Your task to perform on an android device: Show the shopping cart on newegg.com. Add "bose soundlink" to the cart on newegg.com Image 0: 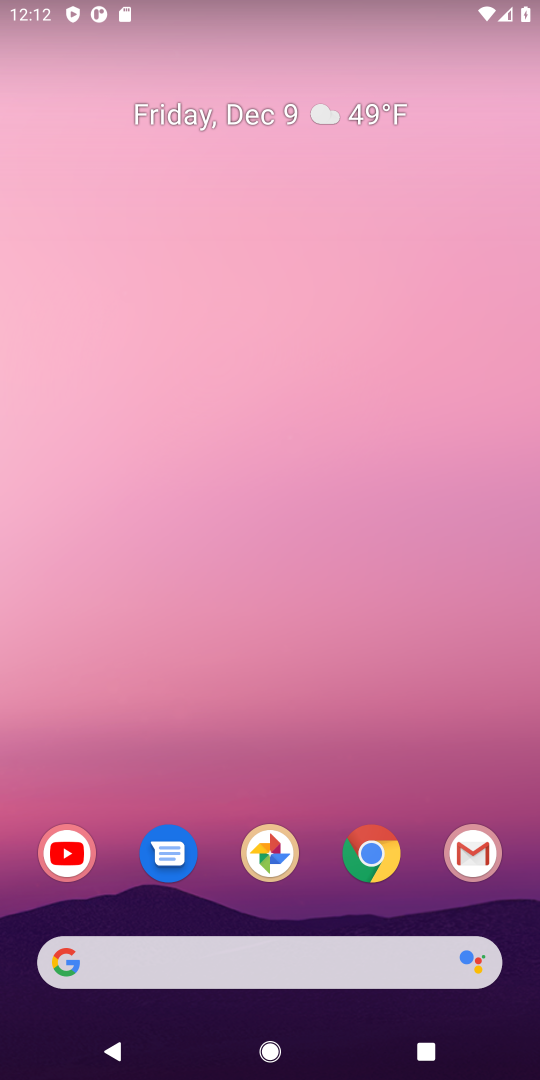
Step 0: click (508, 145)
Your task to perform on an android device: Show the shopping cart on newegg.com. Add "bose soundlink" to the cart on newegg.com Image 1: 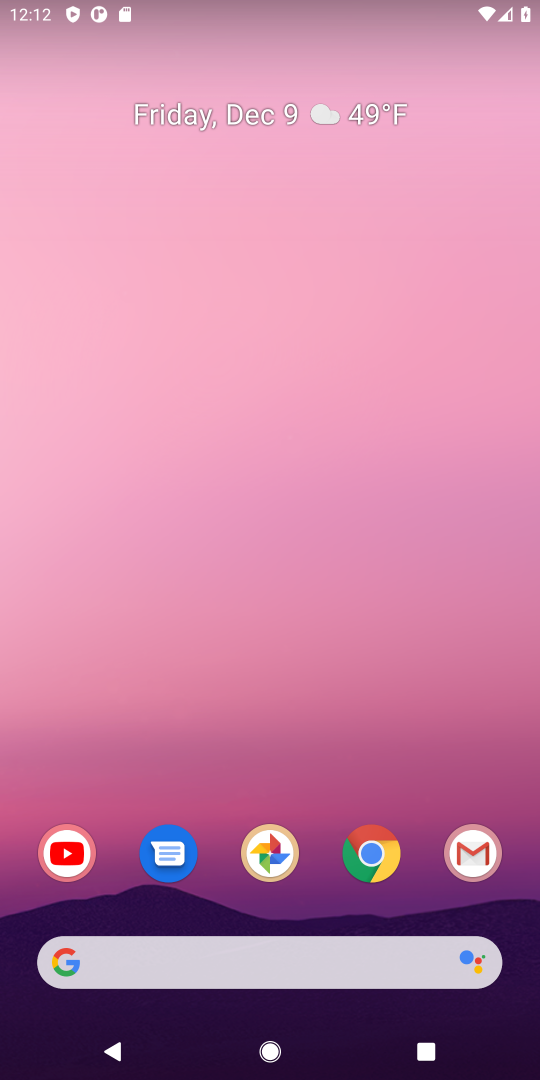
Step 1: drag from (320, 948) to (311, 330)
Your task to perform on an android device: Show the shopping cart on newegg.com. Add "bose soundlink" to the cart on newegg.com Image 2: 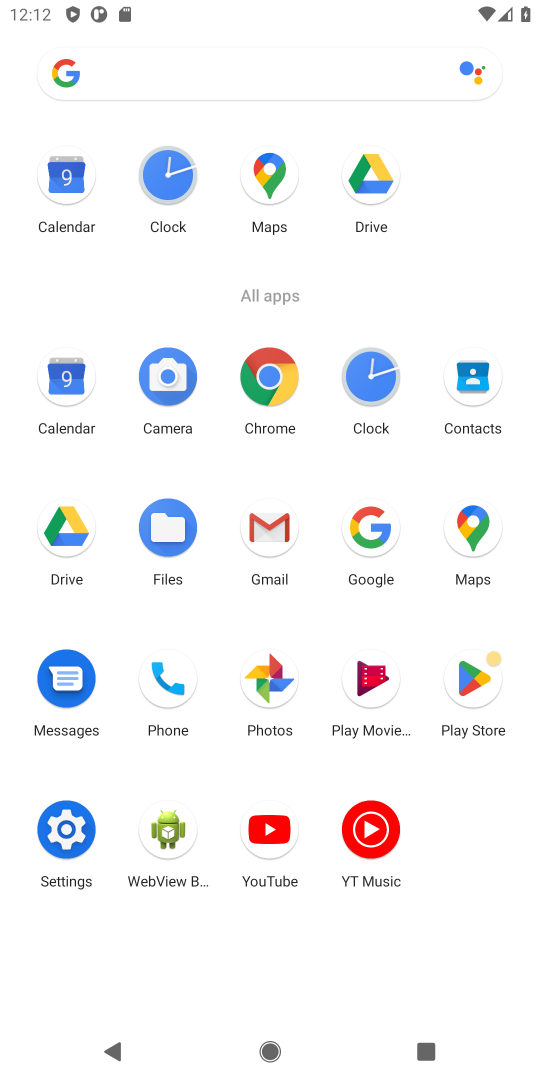
Step 2: press home button
Your task to perform on an android device: Show the shopping cart on newegg.com. Add "bose soundlink" to the cart on newegg.com Image 3: 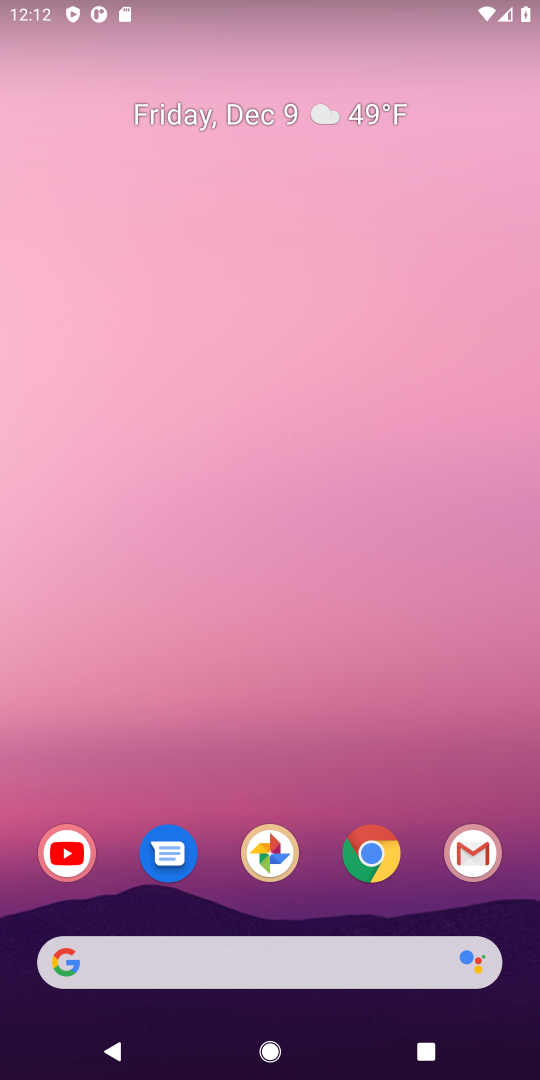
Step 3: drag from (291, 966) to (326, 249)
Your task to perform on an android device: Show the shopping cart on newegg.com. Add "bose soundlink" to the cart on newegg.com Image 4: 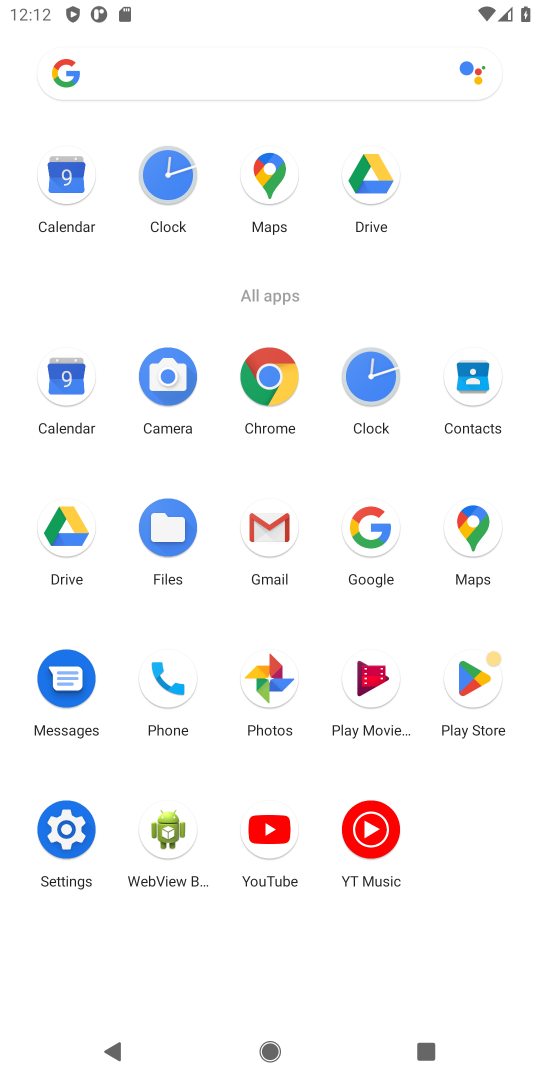
Step 4: click (370, 534)
Your task to perform on an android device: Show the shopping cart on newegg.com. Add "bose soundlink" to the cart on newegg.com Image 5: 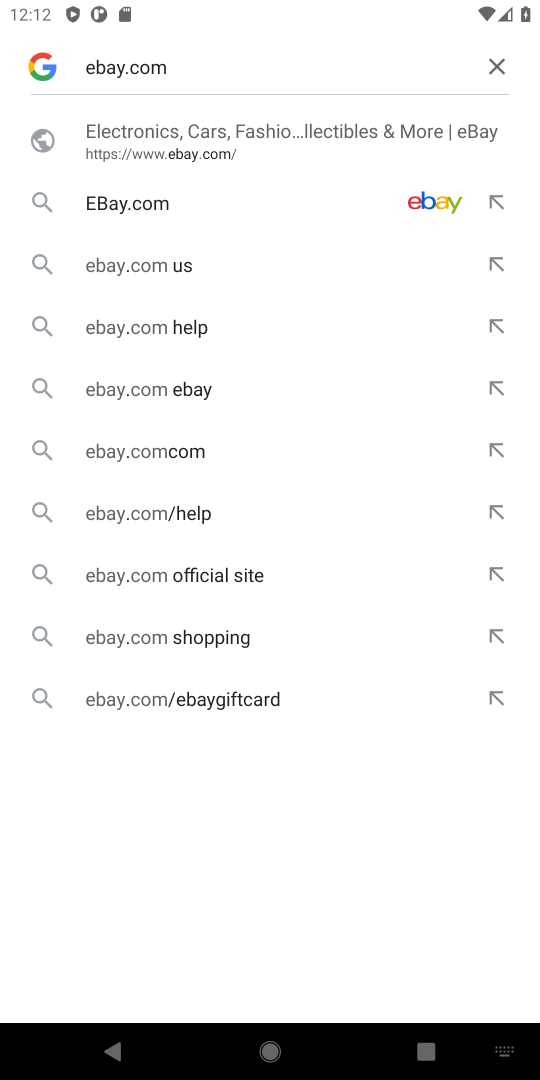
Step 5: click (499, 77)
Your task to perform on an android device: Show the shopping cart on newegg.com. Add "bose soundlink" to the cart on newegg.com Image 6: 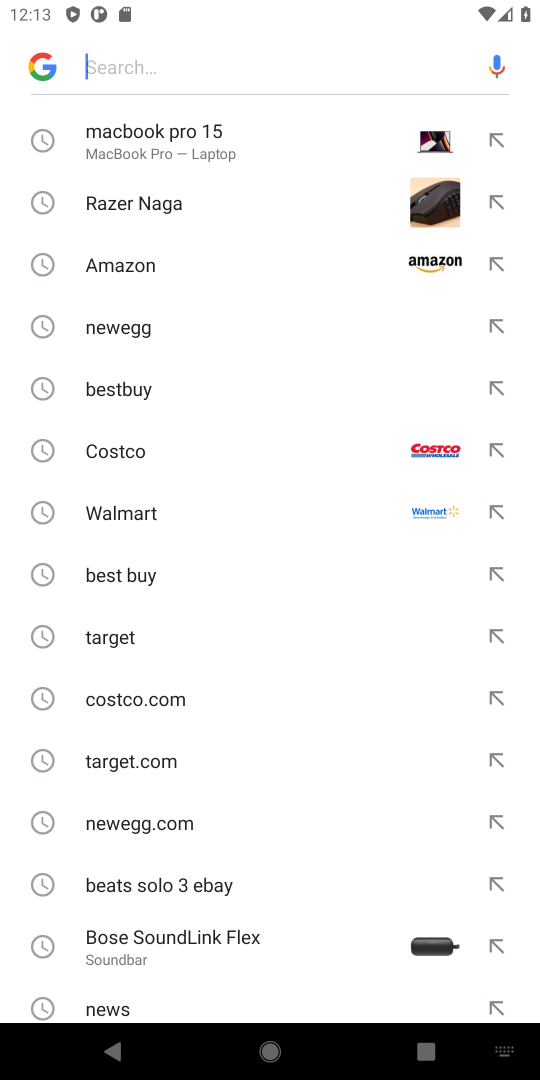
Step 6: click (132, 328)
Your task to perform on an android device: Show the shopping cart on newegg.com. Add "bose soundlink" to the cart on newegg.com Image 7: 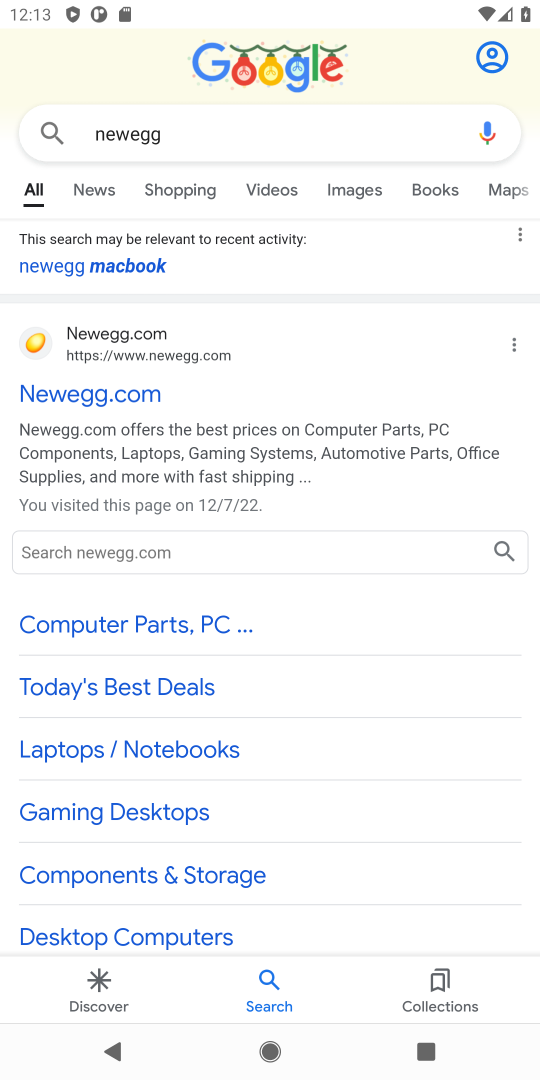
Step 7: click (88, 396)
Your task to perform on an android device: Show the shopping cart on newegg.com. Add "bose soundlink" to the cart on newegg.com Image 8: 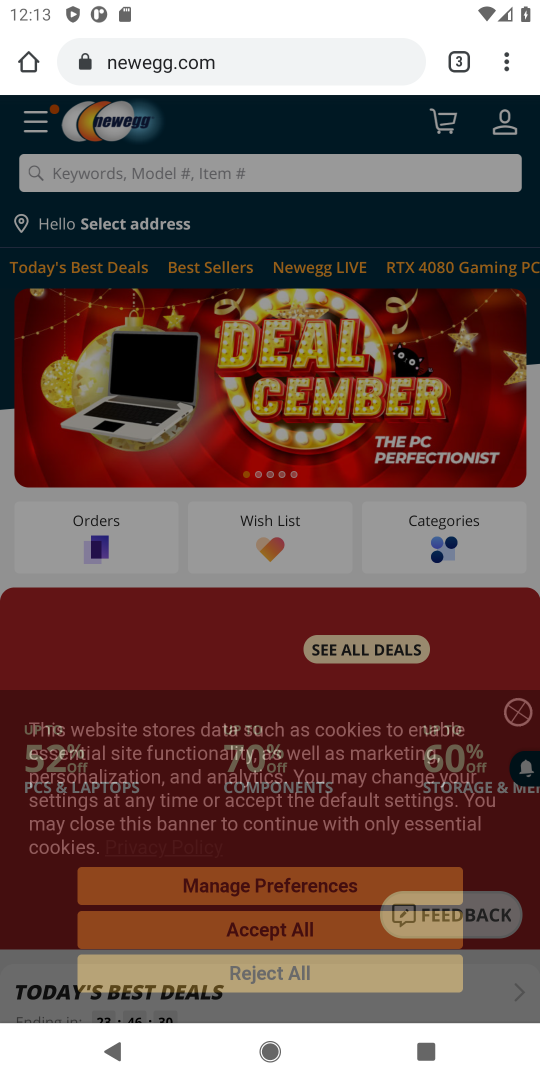
Step 8: click (125, 168)
Your task to perform on an android device: Show the shopping cart on newegg.com. Add "bose soundlink" to the cart on newegg.com Image 9: 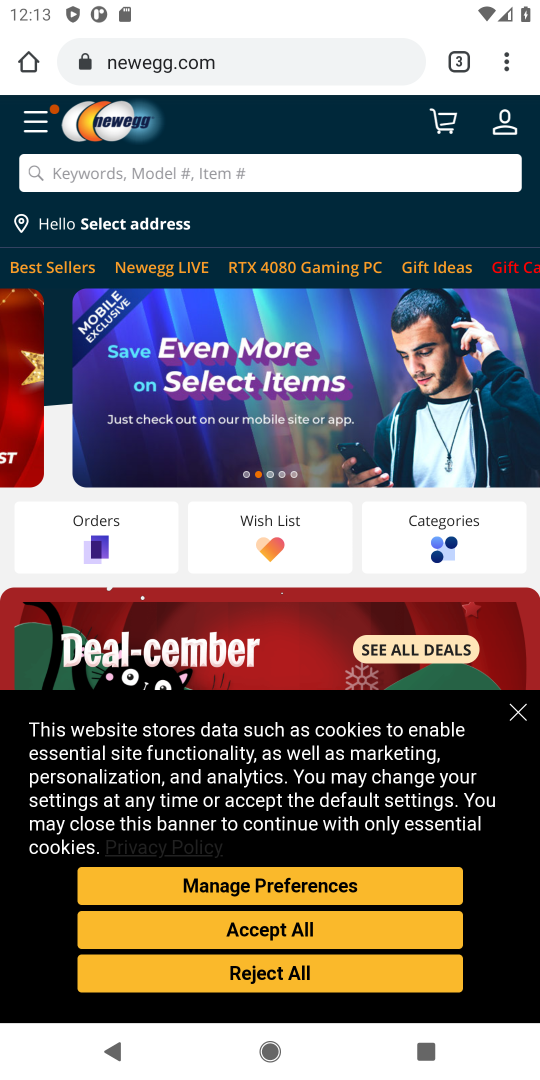
Step 9: click (483, 205)
Your task to perform on an android device: Show the shopping cart on newegg.com. Add "bose soundlink" to the cart on newegg.com Image 10: 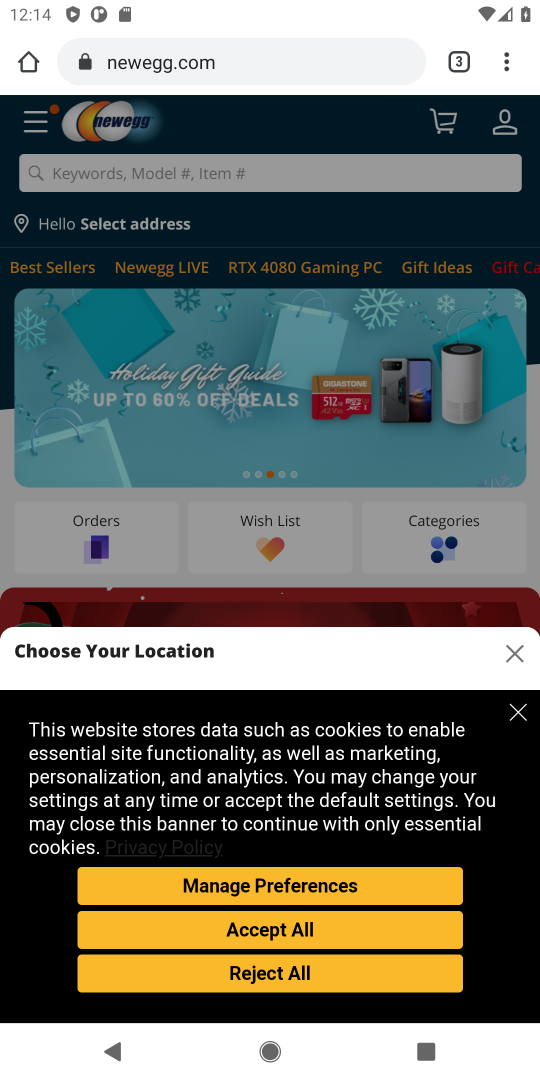
Step 10: click (77, 174)
Your task to perform on an android device: Show the shopping cart on newegg.com. Add "bose soundlink" to the cart on newegg.com Image 11: 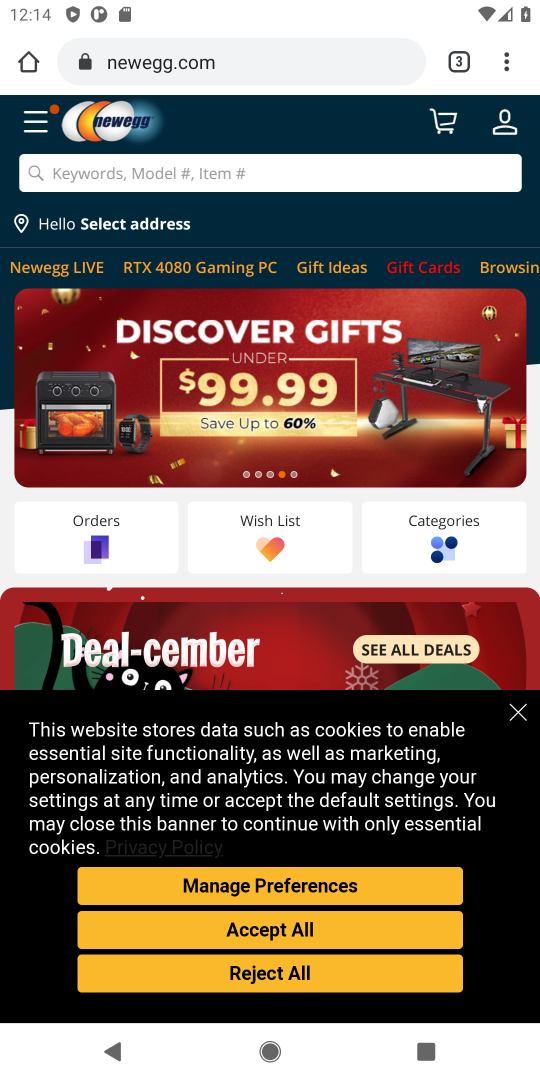
Step 11: type "bose soundlink"
Your task to perform on an android device: Show the shopping cart on newegg.com. Add "bose soundlink" to the cart on newegg.com Image 12: 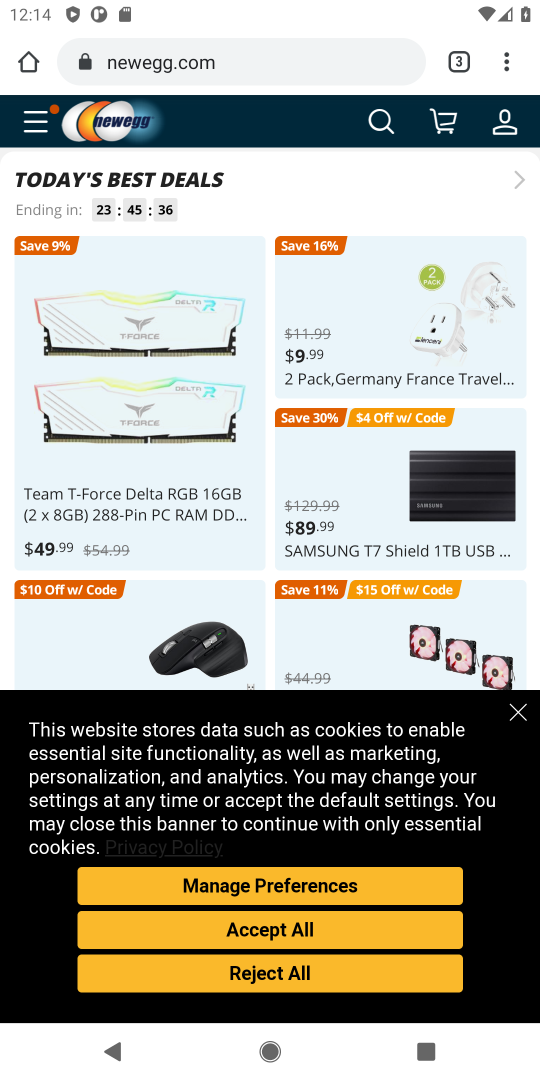
Step 12: click (383, 131)
Your task to perform on an android device: Show the shopping cart on newegg.com. Add "bose soundlink" to the cart on newegg.com Image 13: 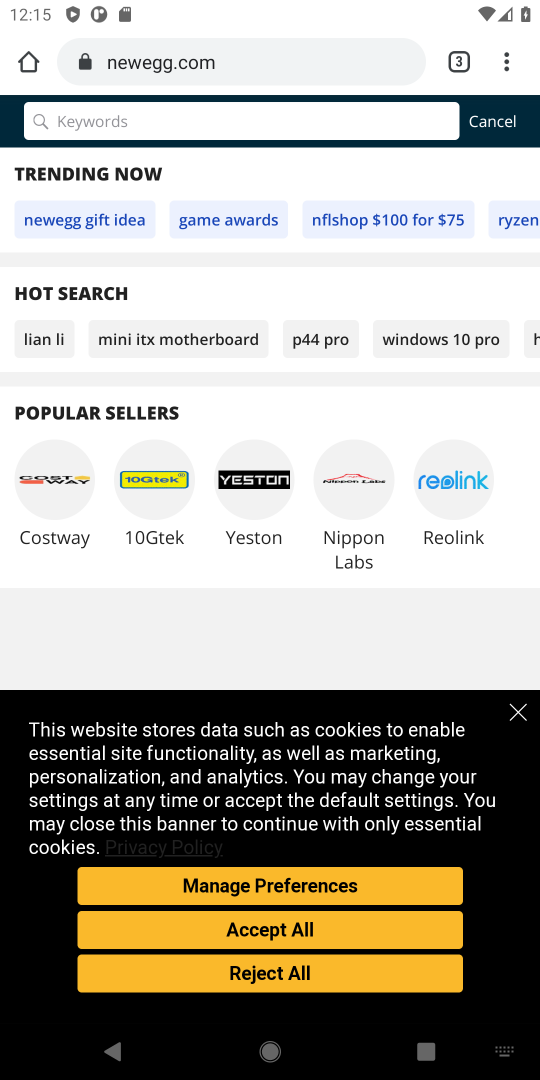
Step 13: type "bose soundlink"
Your task to perform on an android device: Show the shopping cart on newegg.com. Add "bose soundlink" to the cart on newegg.com Image 14: 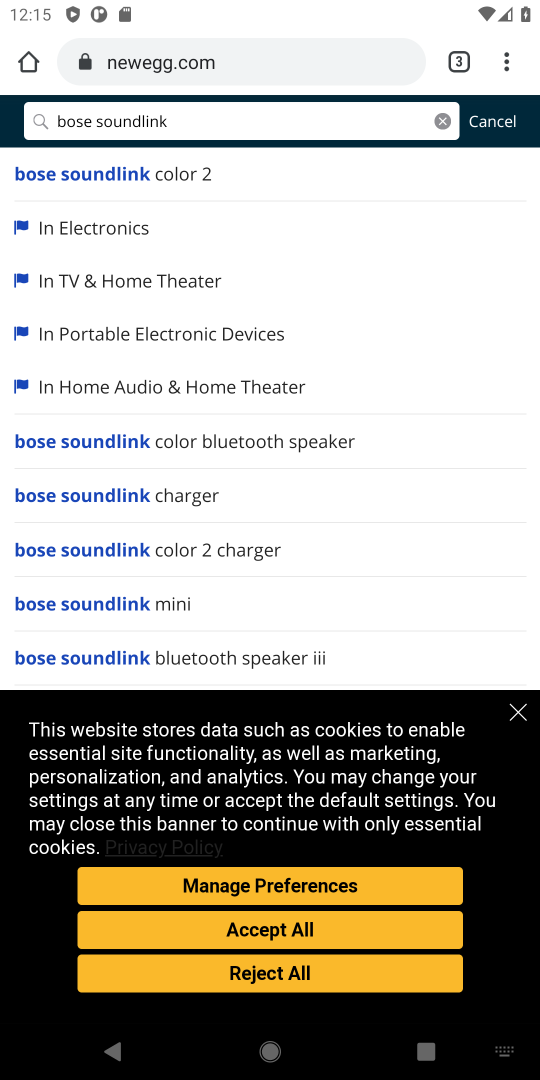
Step 14: click (118, 174)
Your task to perform on an android device: Show the shopping cart on newegg.com. Add "bose soundlink" to the cart on newegg.com Image 15: 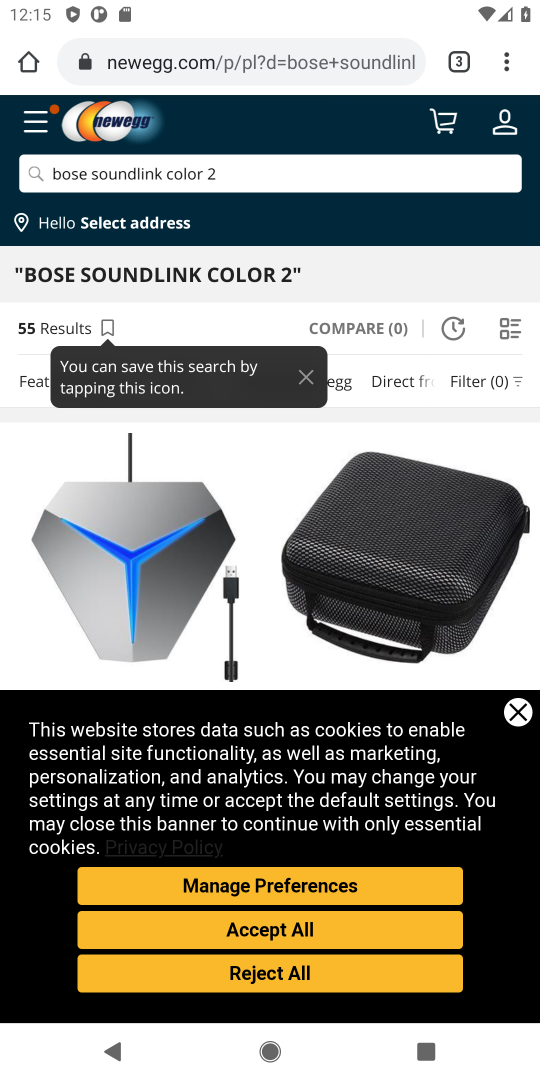
Step 15: click (520, 709)
Your task to perform on an android device: Show the shopping cart on newegg.com. Add "bose soundlink" to the cart on newegg.com Image 16: 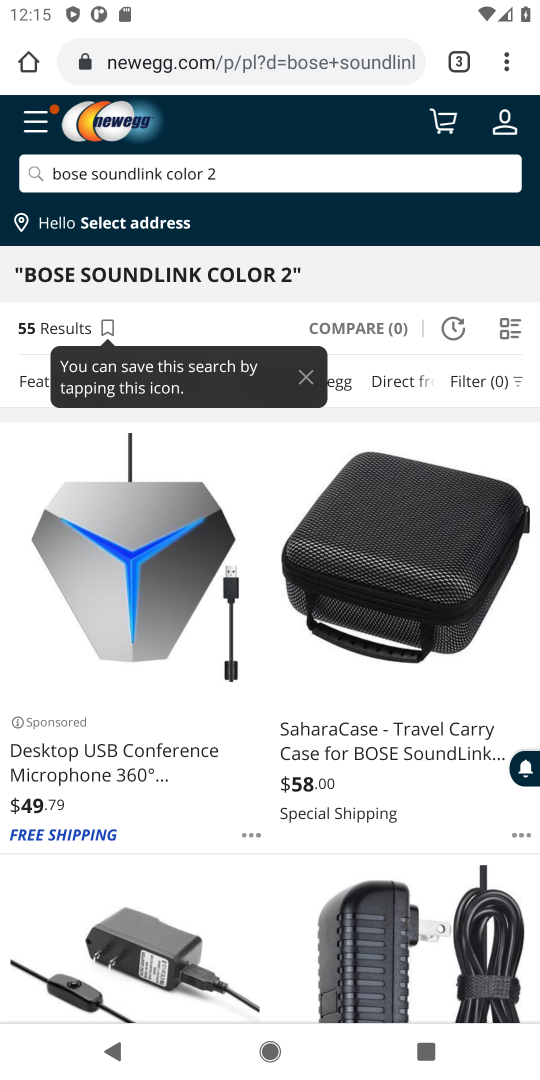
Step 16: click (88, 643)
Your task to perform on an android device: Show the shopping cart on newegg.com. Add "bose soundlink" to the cart on newegg.com Image 17: 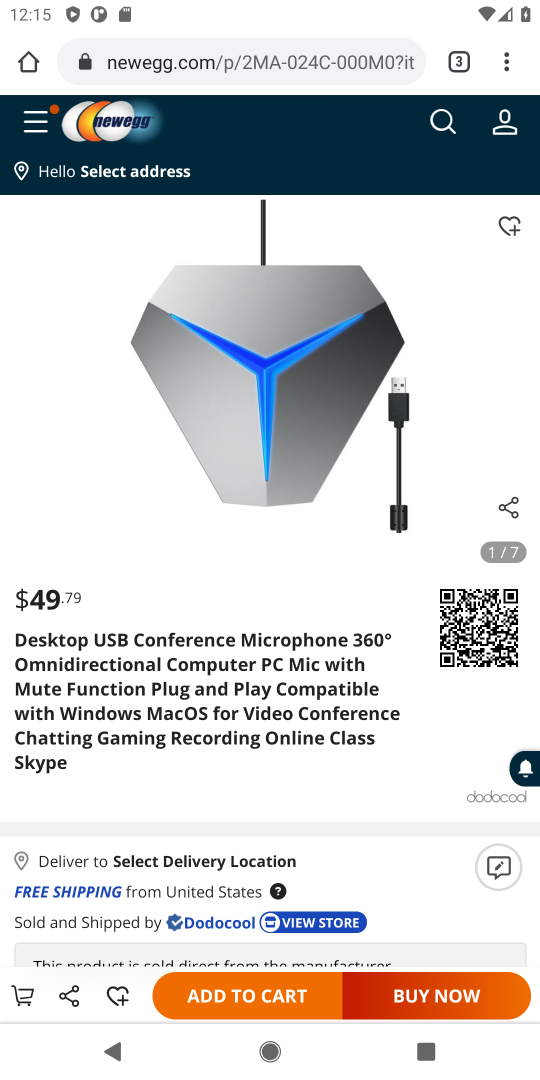
Step 17: click (240, 1001)
Your task to perform on an android device: Show the shopping cart on newegg.com. Add "bose soundlink" to the cart on newegg.com Image 18: 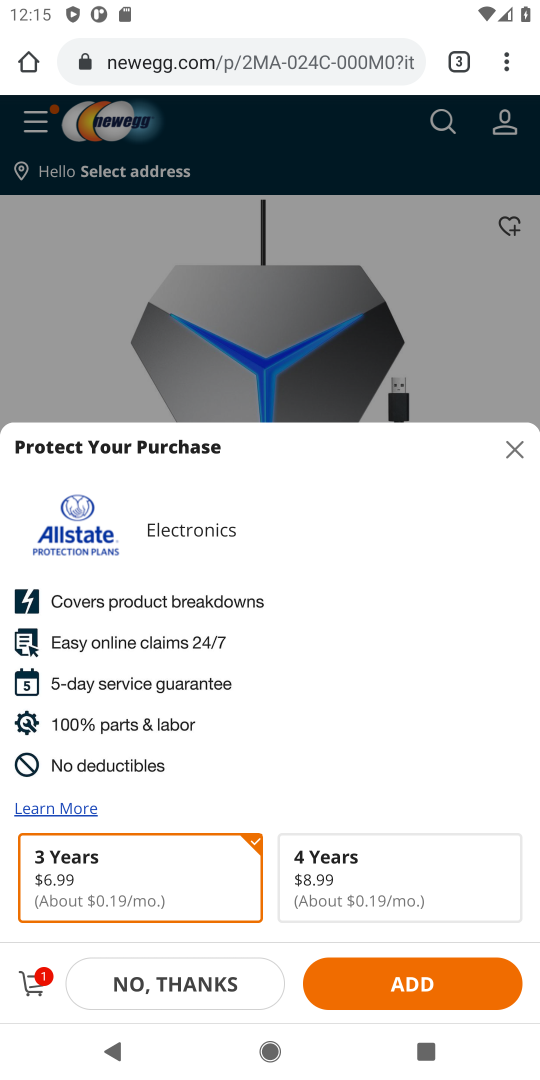
Step 18: click (515, 454)
Your task to perform on an android device: Show the shopping cart on newegg.com. Add "bose soundlink" to the cart on newegg.com Image 19: 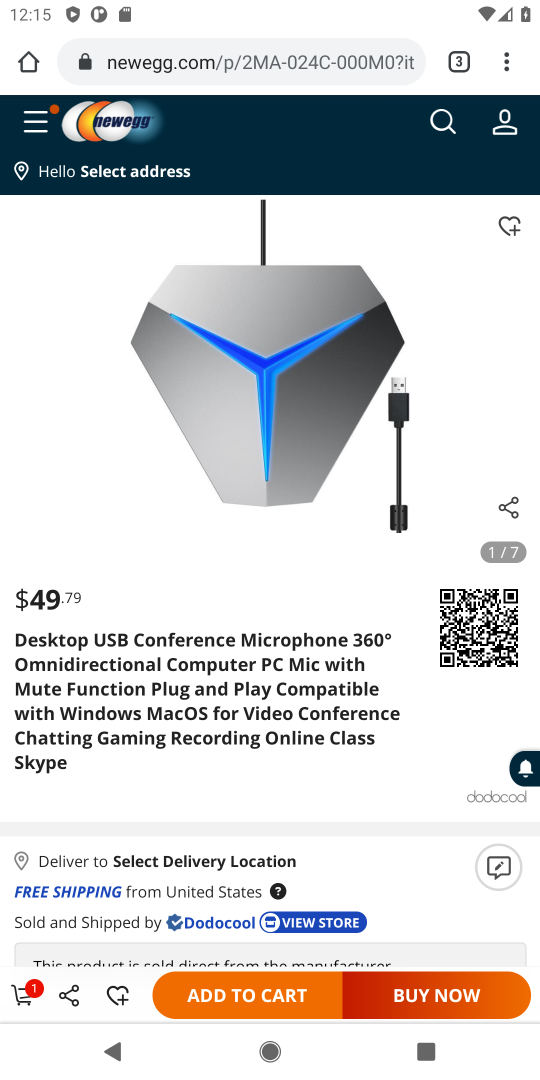
Step 19: task complete